Your task to perform on an android device: open device folders in google photos Image 0: 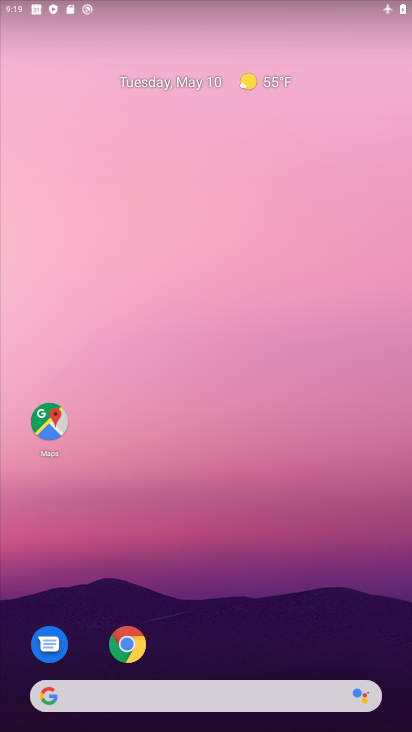
Step 0: drag from (220, 475) to (203, 59)
Your task to perform on an android device: open device folders in google photos Image 1: 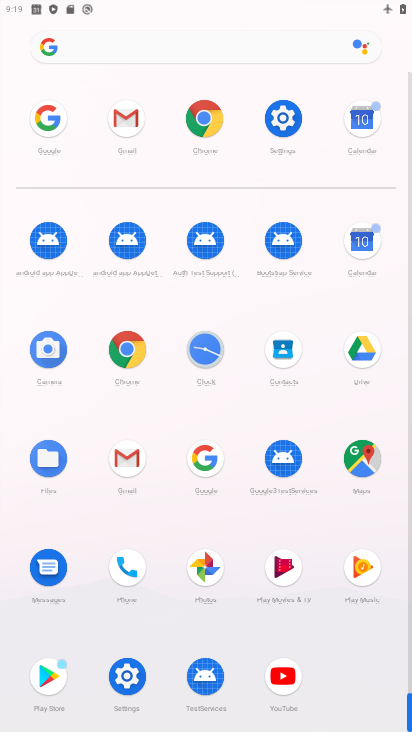
Step 1: click (205, 572)
Your task to perform on an android device: open device folders in google photos Image 2: 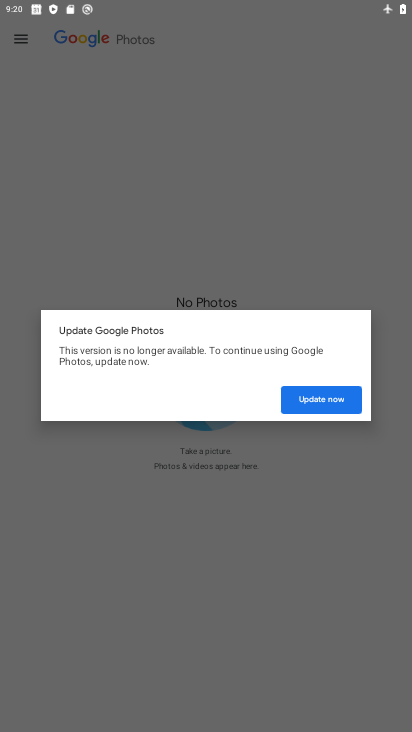
Step 2: task complete